Your task to perform on an android device: turn on location history Image 0: 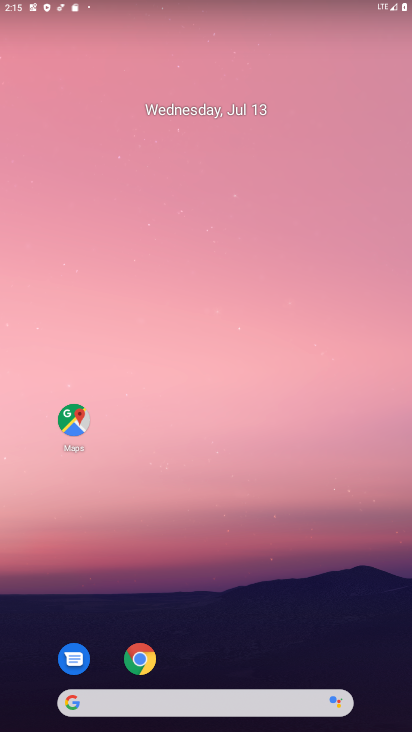
Step 0: click (73, 412)
Your task to perform on an android device: turn on location history Image 1: 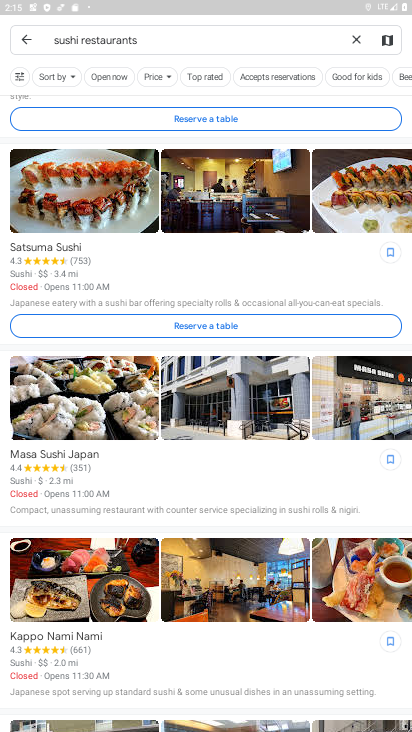
Step 1: click (353, 37)
Your task to perform on an android device: turn on location history Image 2: 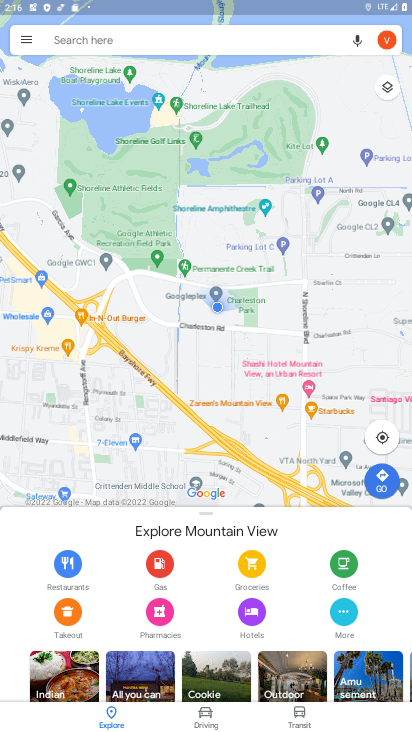
Step 2: click (25, 32)
Your task to perform on an android device: turn on location history Image 3: 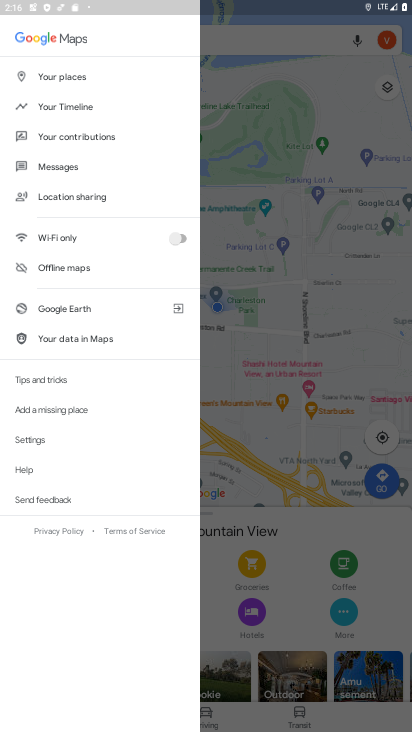
Step 3: click (32, 441)
Your task to perform on an android device: turn on location history Image 4: 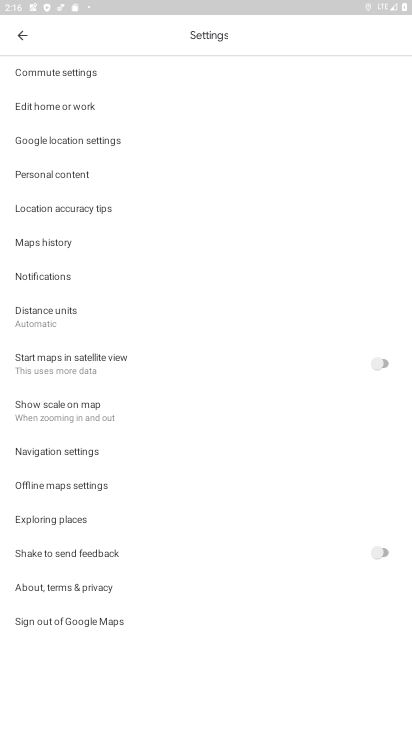
Step 4: click (50, 172)
Your task to perform on an android device: turn on location history Image 5: 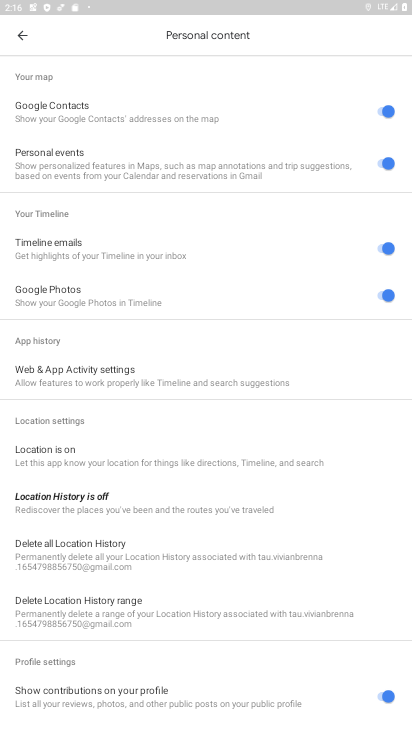
Step 5: click (82, 507)
Your task to perform on an android device: turn on location history Image 6: 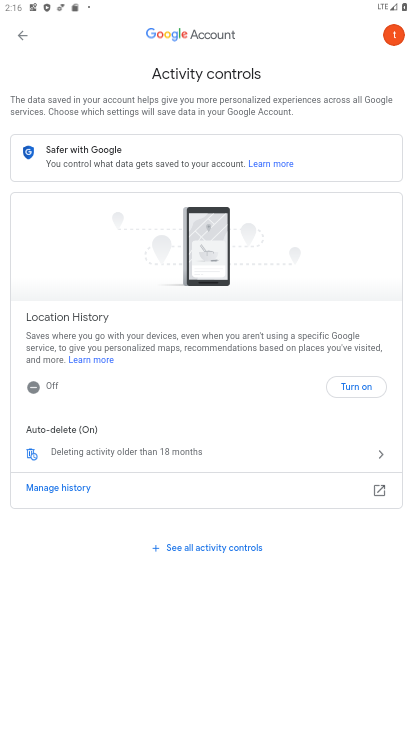
Step 6: click (352, 387)
Your task to perform on an android device: turn on location history Image 7: 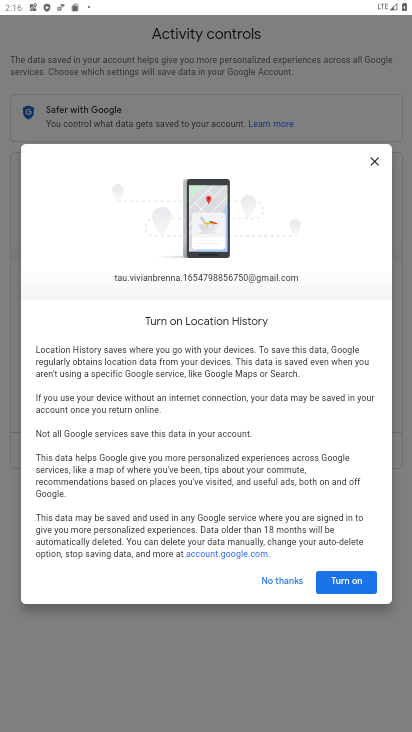
Step 7: click (345, 583)
Your task to perform on an android device: turn on location history Image 8: 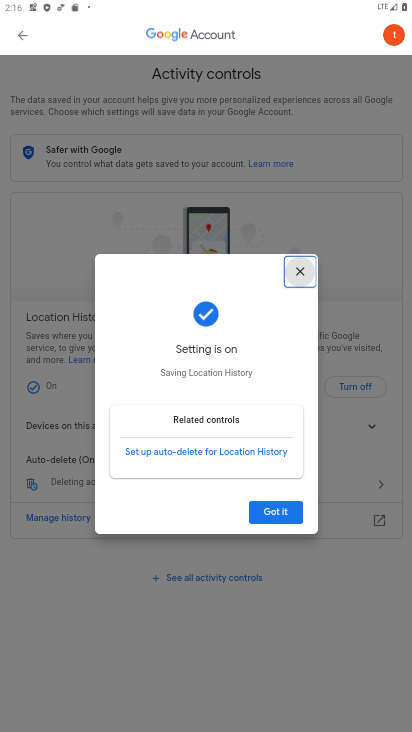
Step 8: click (274, 517)
Your task to perform on an android device: turn on location history Image 9: 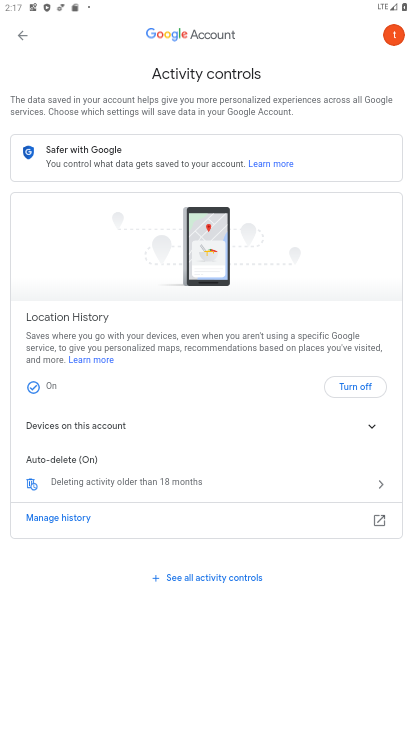
Step 9: task complete